Your task to perform on an android device: all mails in gmail Image 0: 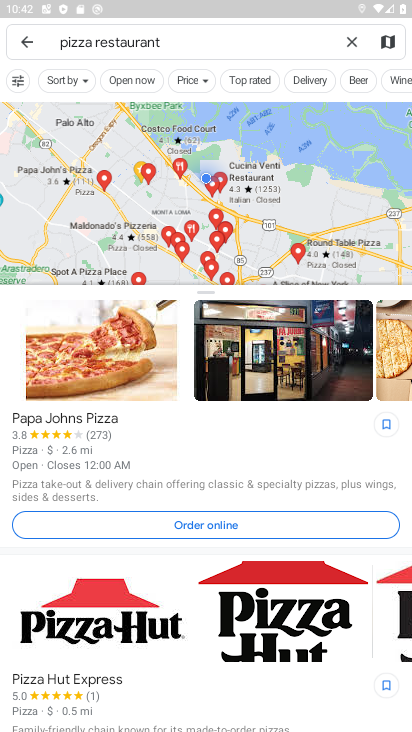
Step 0: press home button
Your task to perform on an android device: all mails in gmail Image 1: 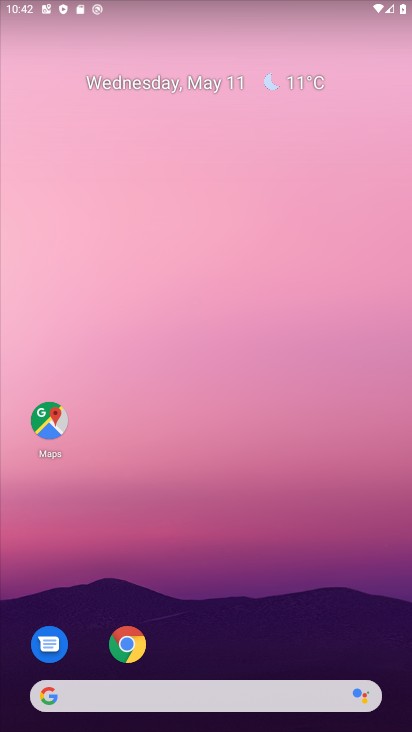
Step 1: drag from (252, 593) to (328, 0)
Your task to perform on an android device: all mails in gmail Image 2: 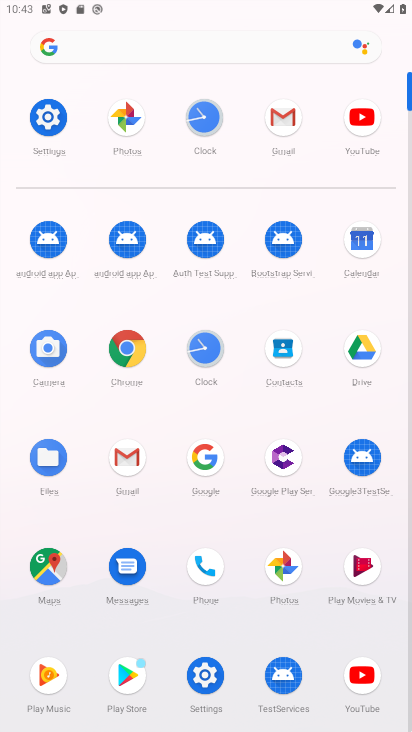
Step 2: click (281, 127)
Your task to perform on an android device: all mails in gmail Image 3: 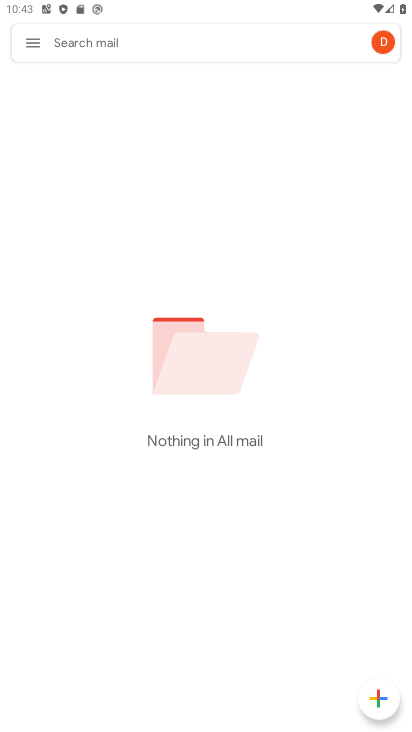
Step 3: task complete